Your task to perform on an android device: Turn off the flashlight Image 0: 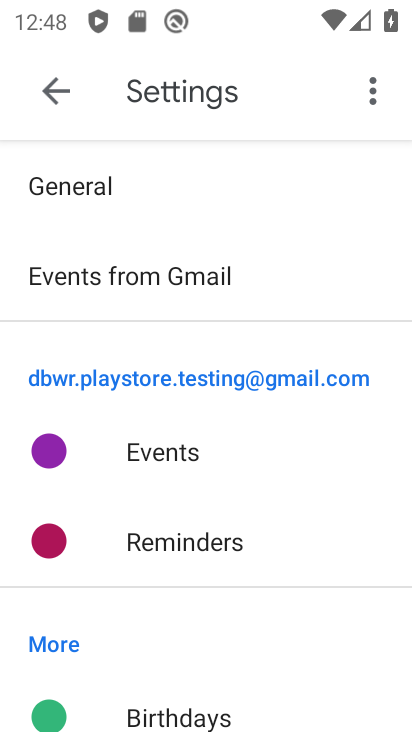
Step 0: press home button
Your task to perform on an android device: Turn off the flashlight Image 1: 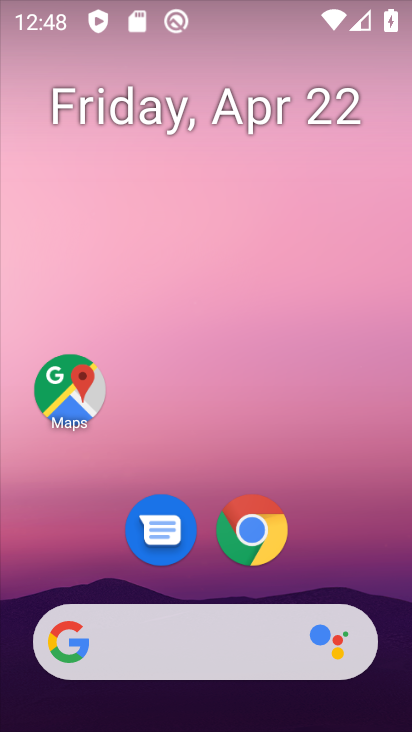
Step 1: drag from (325, 452) to (262, 5)
Your task to perform on an android device: Turn off the flashlight Image 2: 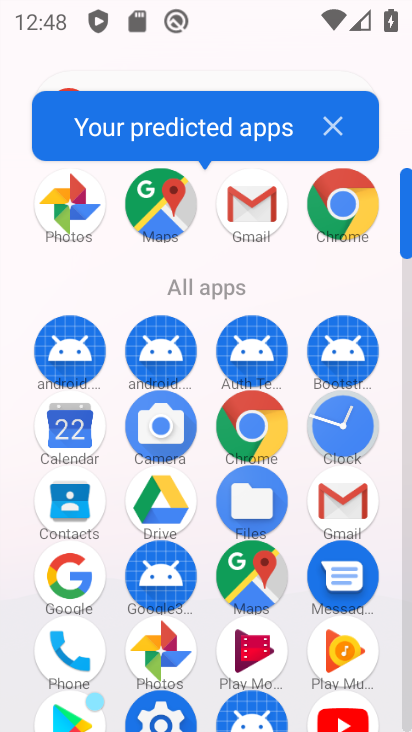
Step 2: drag from (210, 659) to (193, 80)
Your task to perform on an android device: Turn off the flashlight Image 3: 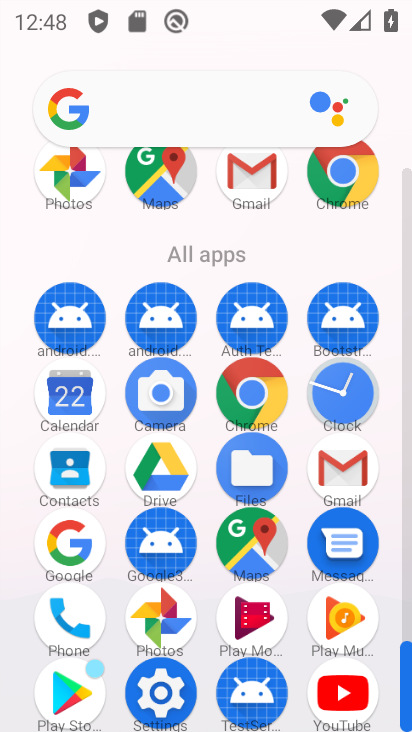
Step 3: click (167, 690)
Your task to perform on an android device: Turn off the flashlight Image 4: 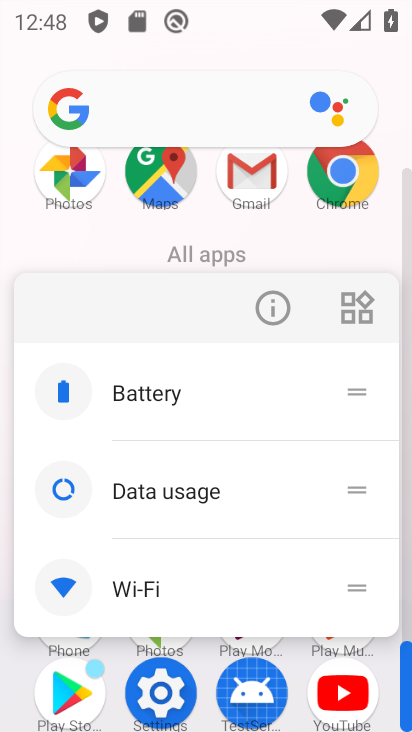
Step 4: click (160, 690)
Your task to perform on an android device: Turn off the flashlight Image 5: 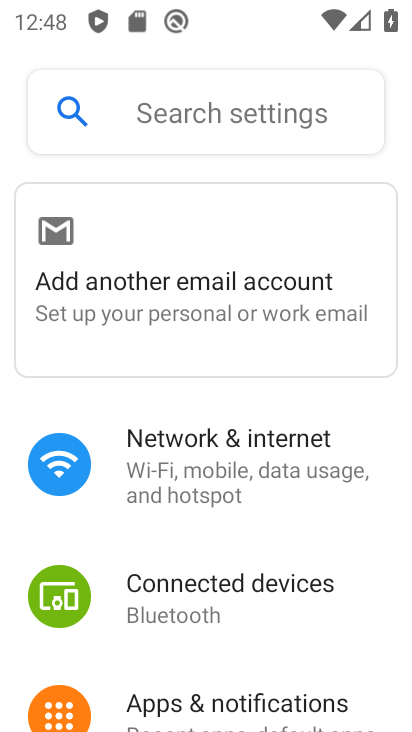
Step 5: click (213, 583)
Your task to perform on an android device: Turn off the flashlight Image 6: 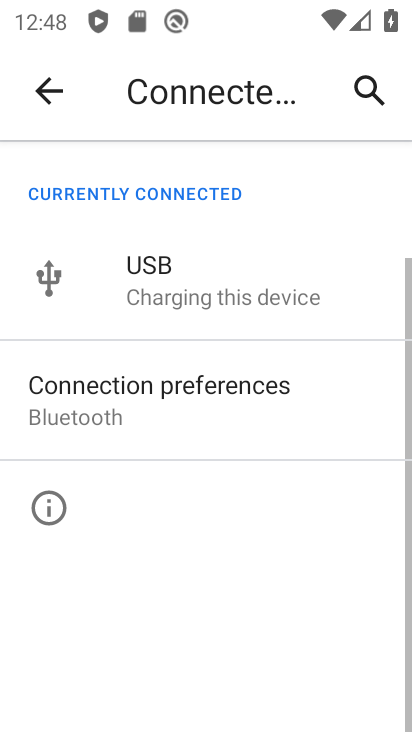
Step 6: task complete